Your task to perform on an android device: turn on bluetooth scan Image 0: 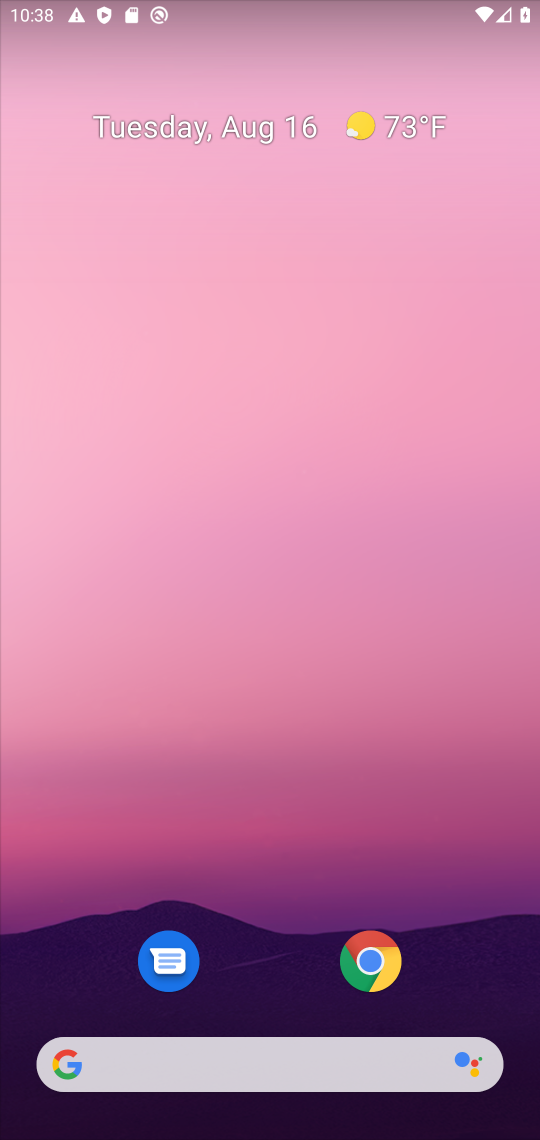
Step 0: drag from (287, 820) to (397, 77)
Your task to perform on an android device: turn on bluetooth scan Image 1: 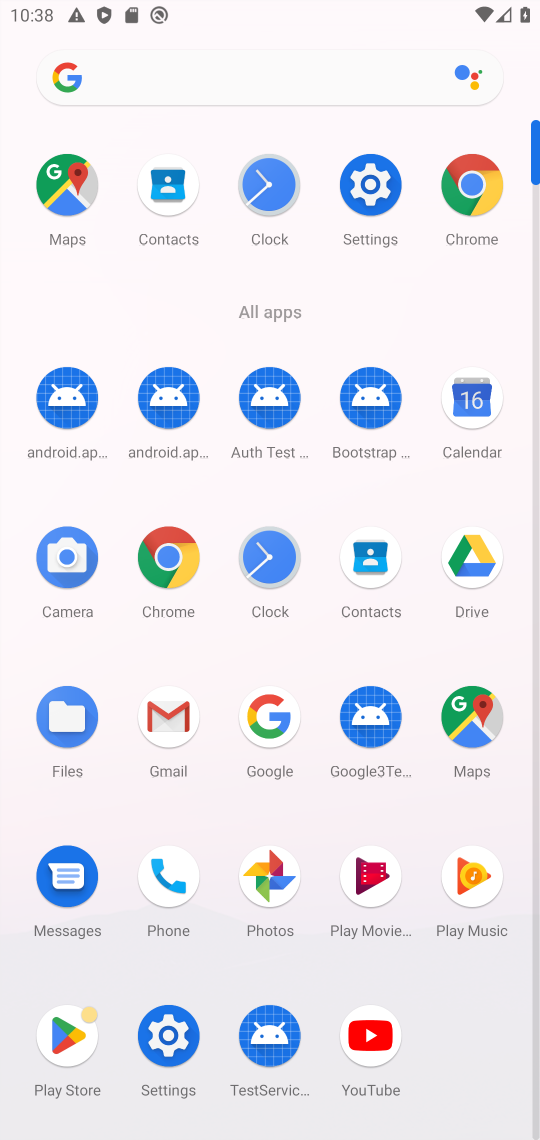
Step 1: click (171, 1030)
Your task to perform on an android device: turn on bluetooth scan Image 2: 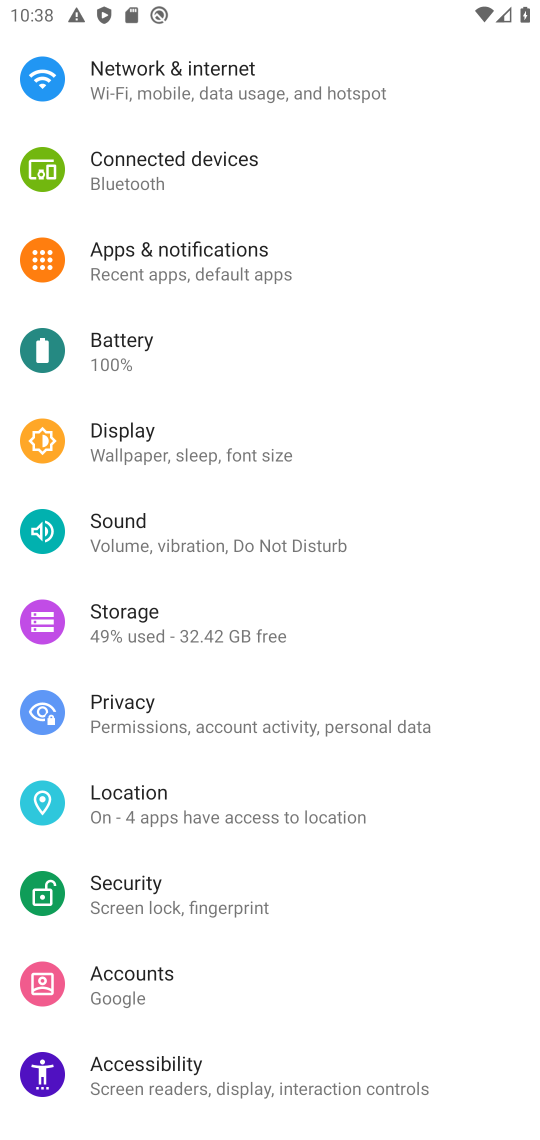
Step 2: task complete